Your task to perform on an android device: Clear the shopping cart on bestbuy. Add "macbook air" to the cart on bestbuy Image 0: 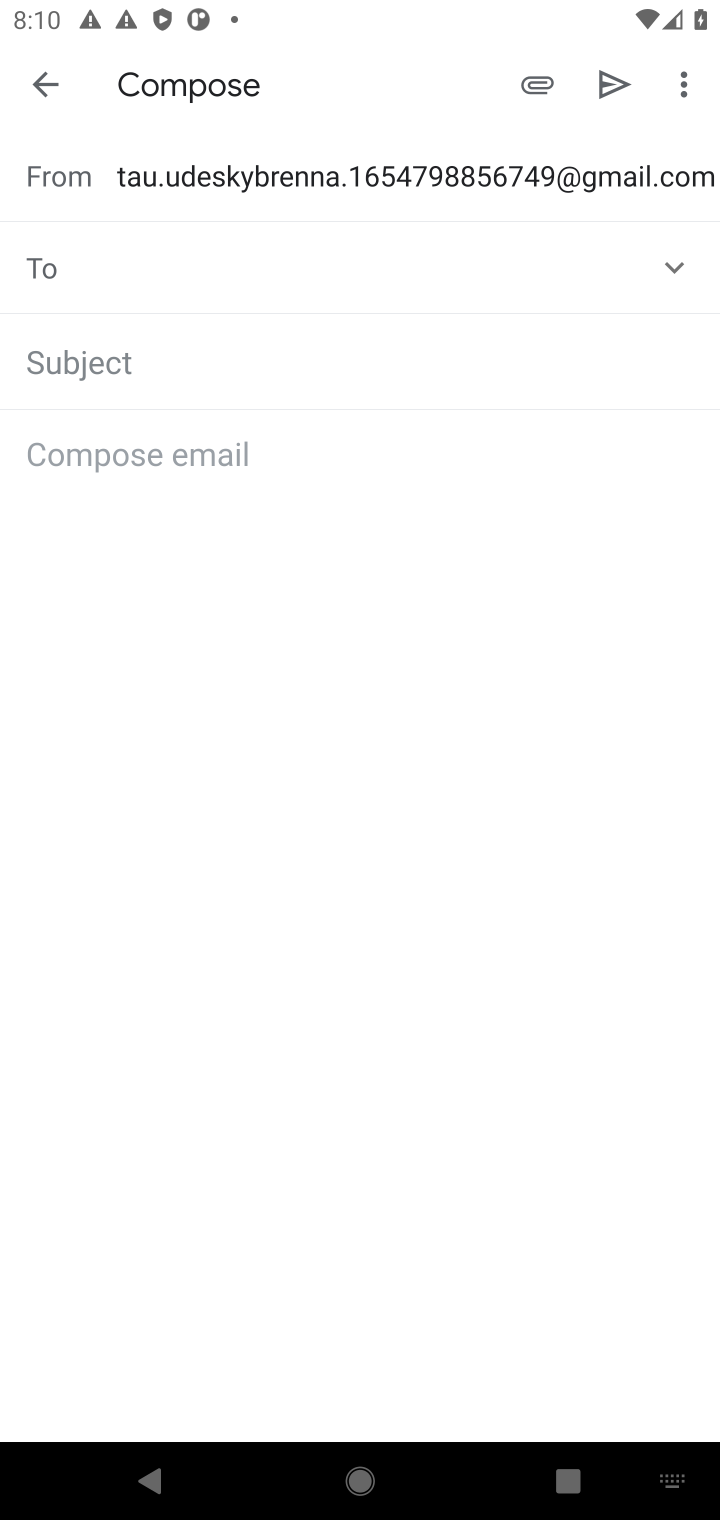
Step 0: press home button
Your task to perform on an android device: Clear the shopping cart on bestbuy. Add "macbook air" to the cart on bestbuy Image 1: 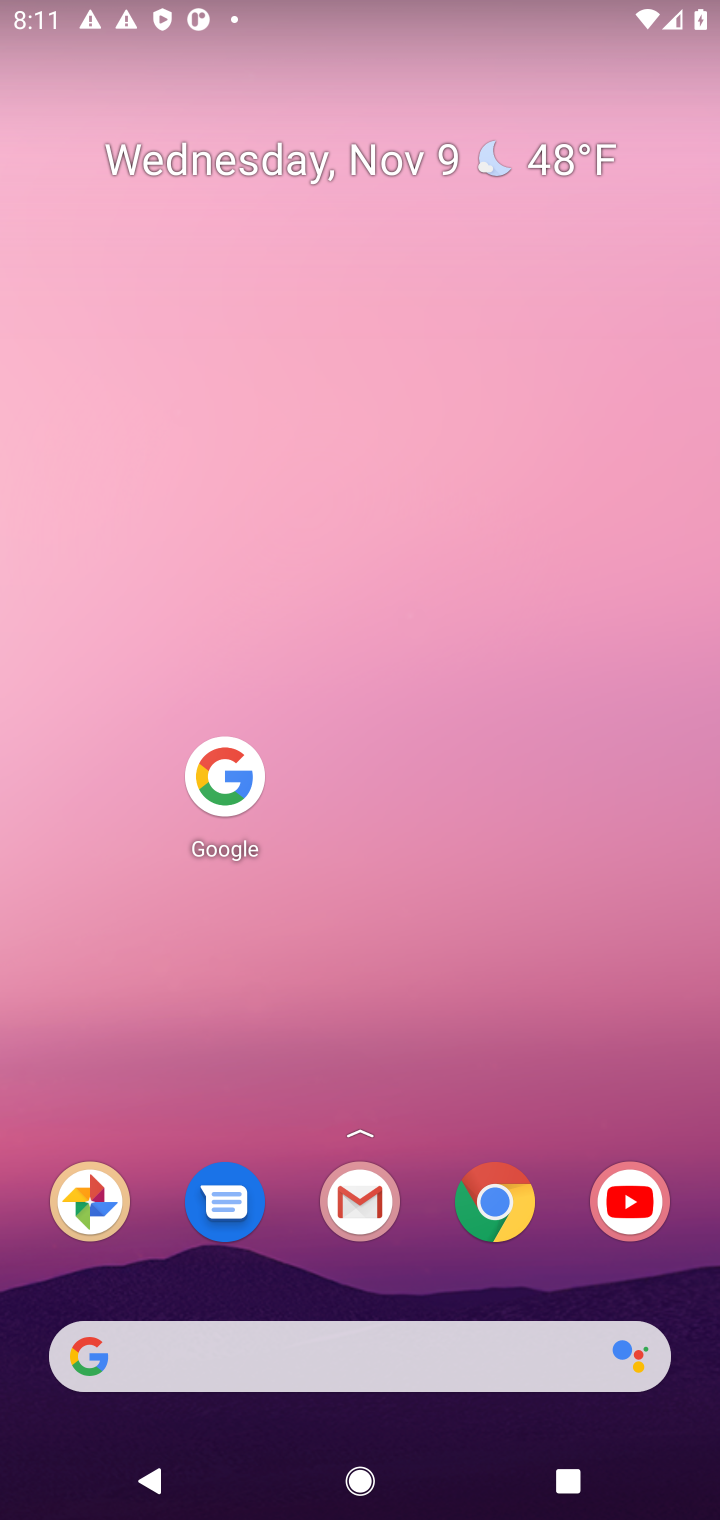
Step 1: click (494, 1188)
Your task to perform on an android device: Clear the shopping cart on bestbuy. Add "macbook air" to the cart on bestbuy Image 2: 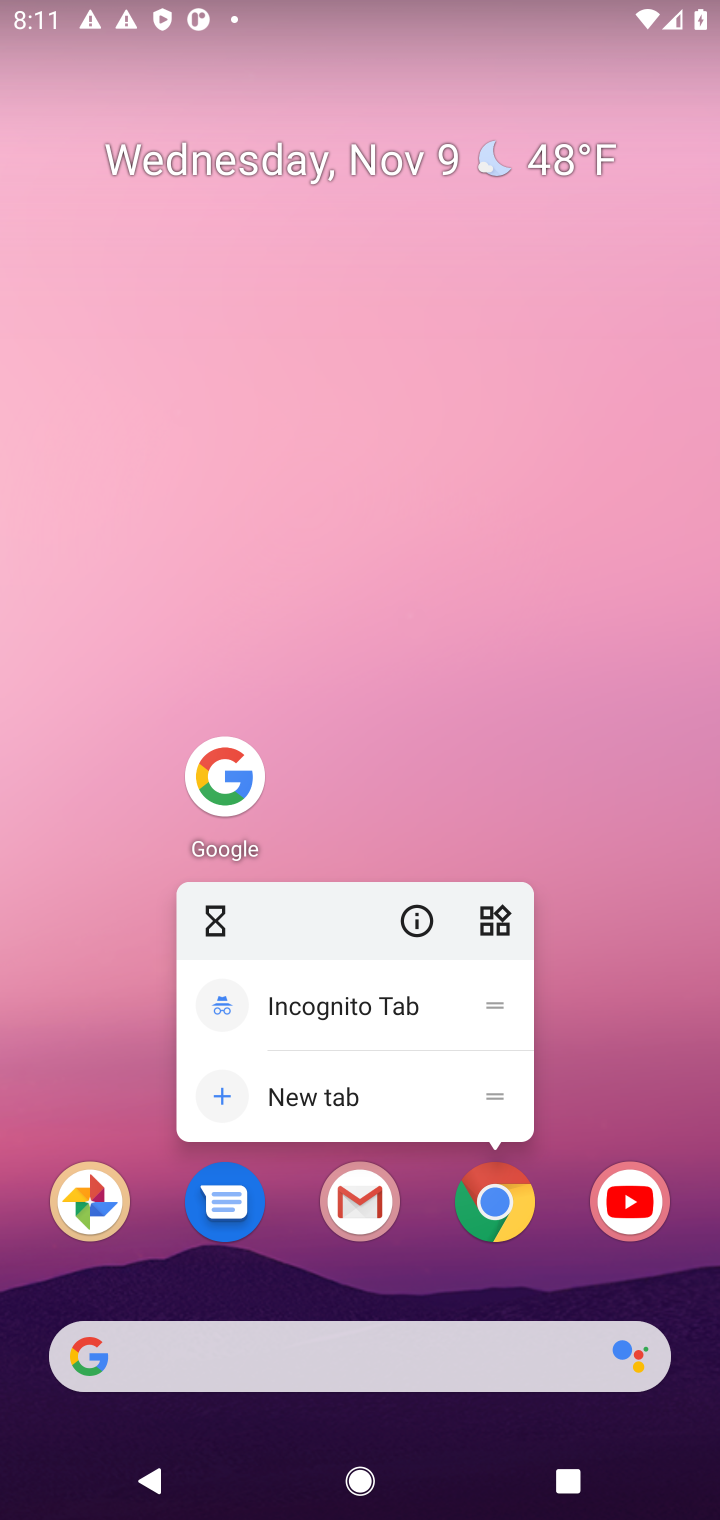
Step 2: click (219, 755)
Your task to perform on an android device: Clear the shopping cart on bestbuy. Add "macbook air" to the cart on bestbuy Image 3: 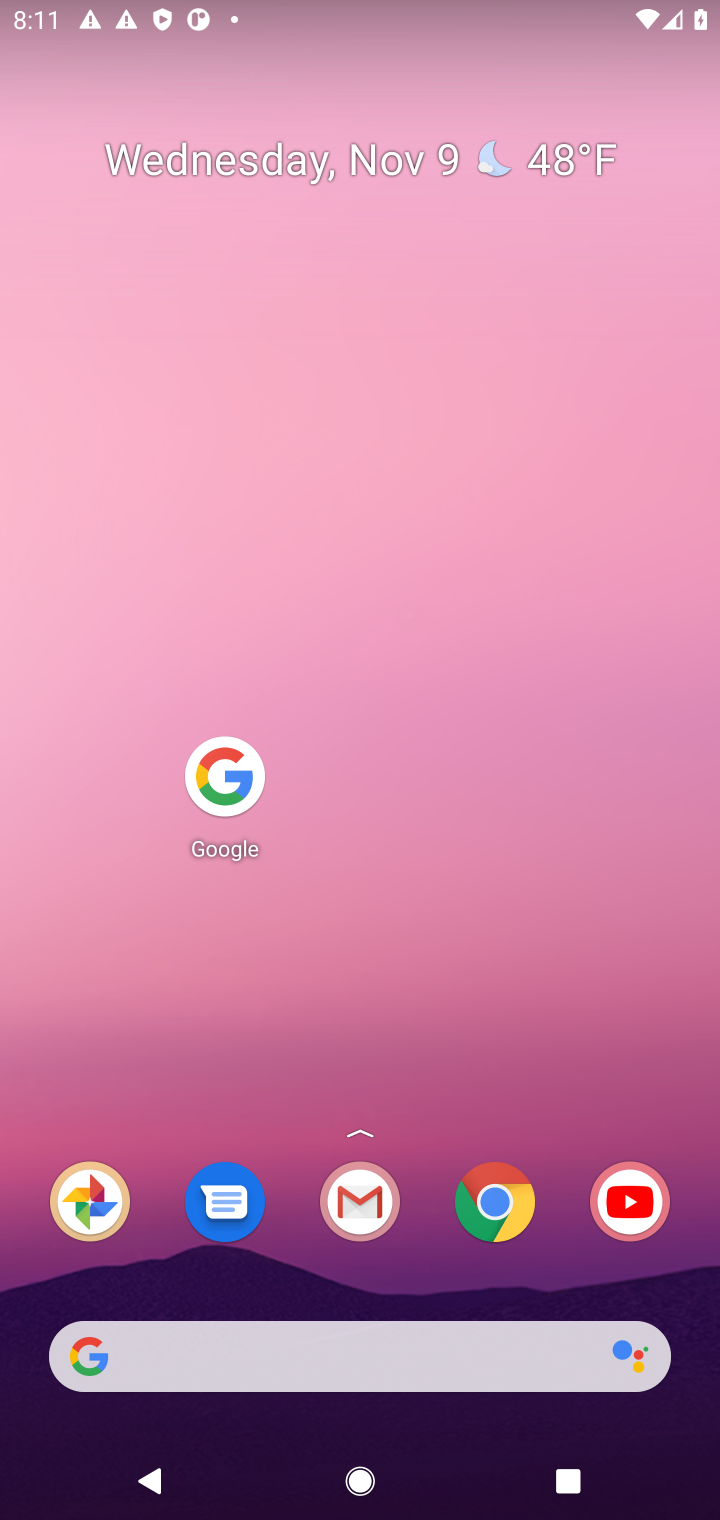
Step 3: click (235, 771)
Your task to perform on an android device: Clear the shopping cart on bestbuy. Add "macbook air" to the cart on bestbuy Image 4: 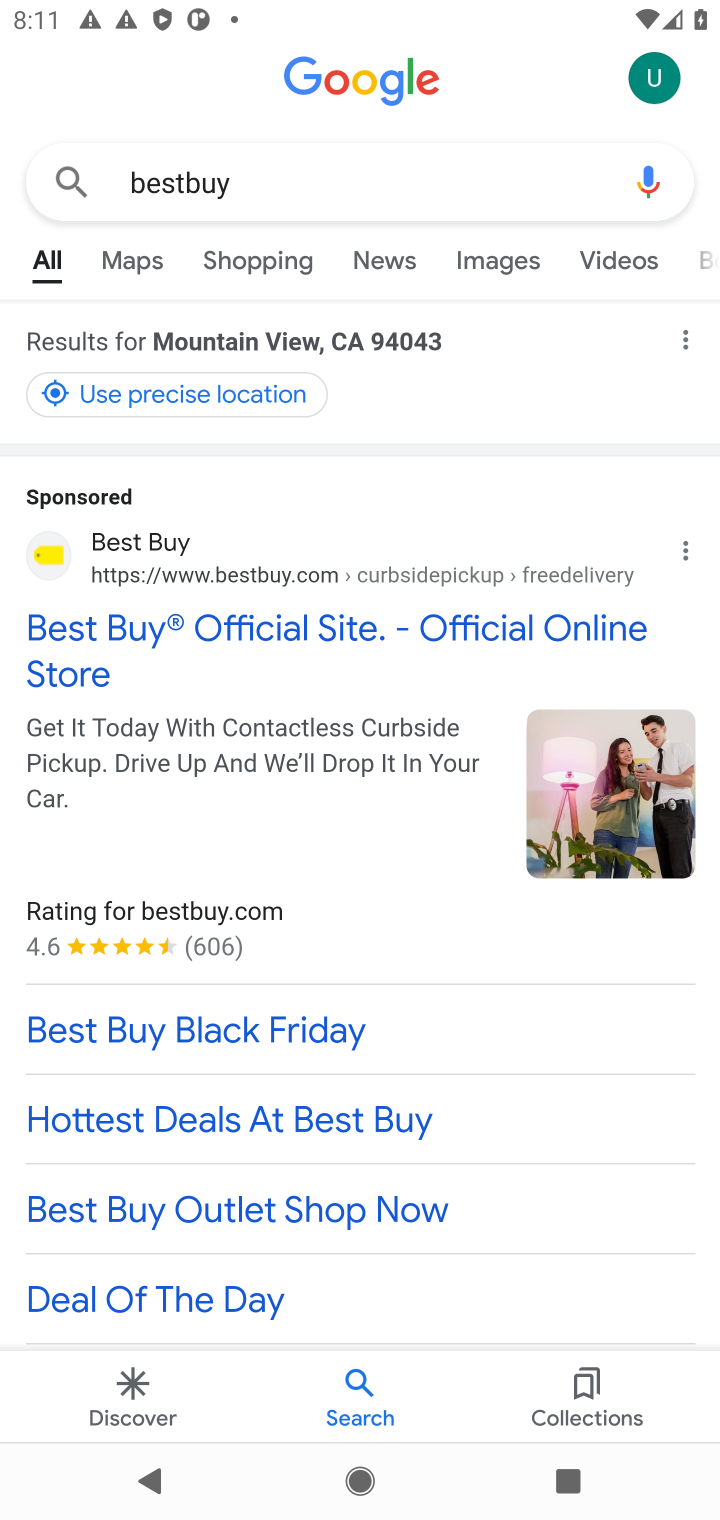
Step 4: click (257, 616)
Your task to perform on an android device: Clear the shopping cart on bestbuy. Add "macbook air" to the cart on bestbuy Image 5: 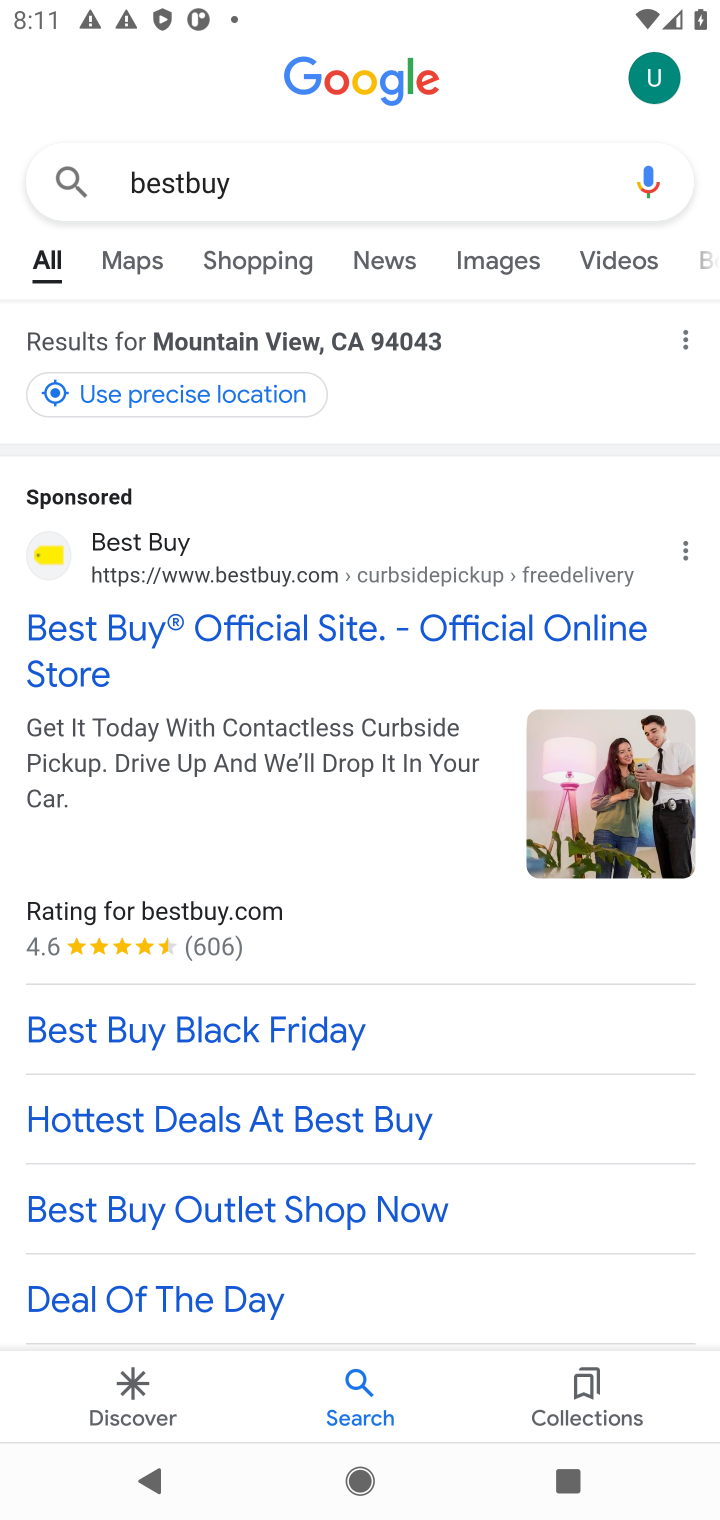
Step 5: click (257, 616)
Your task to perform on an android device: Clear the shopping cart on bestbuy. Add "macbook air" to the cart on bestbuy Image 6: 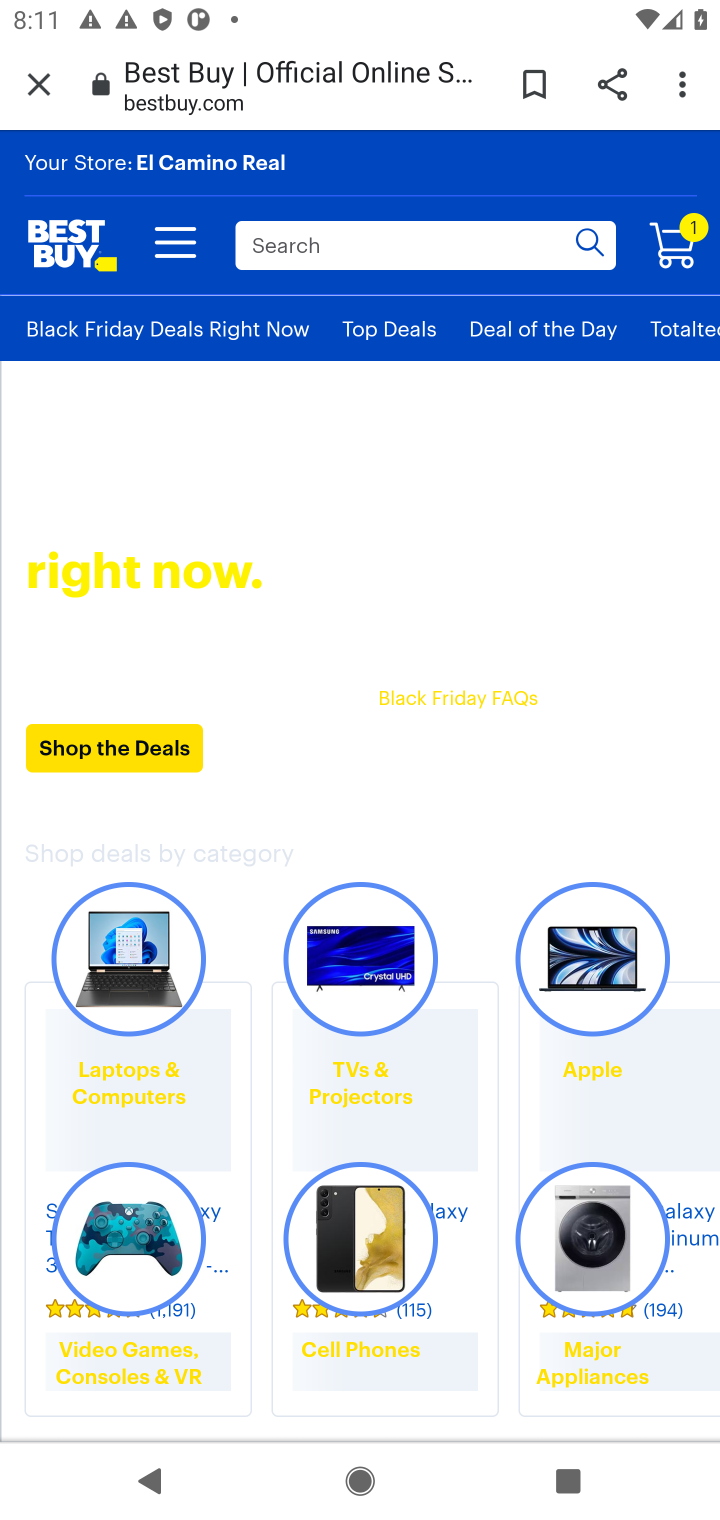
Step 6: click (667, 239)
Your task to perform on an android device: Clear the shopping cart on bestbuy. Add "macbook air" to the cart on bestbuy Image 7: 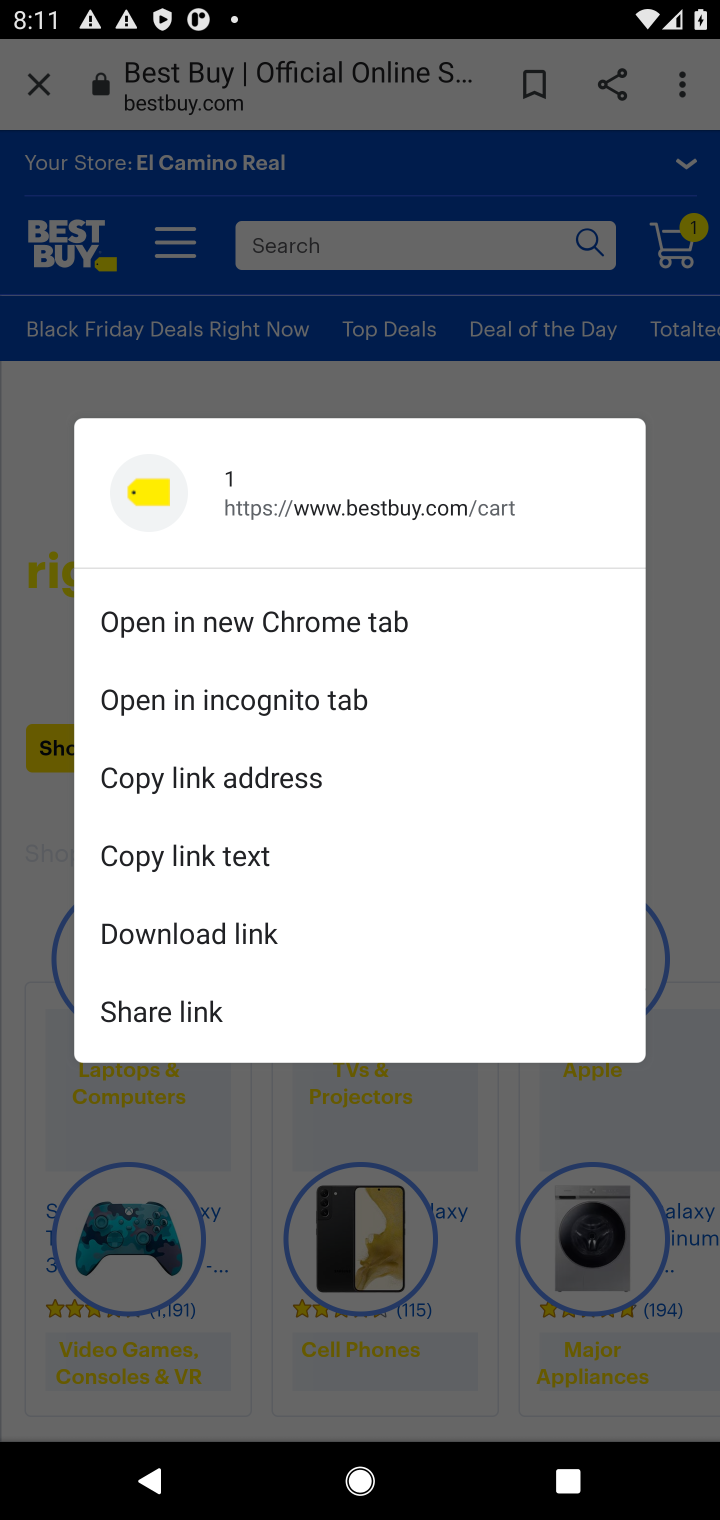
Step 7: click (679, 247)
Your task to perform on an android device: Clear the shopping cart on bestbuy. Add "macbook air" to the cart on bestbuy Image 8: 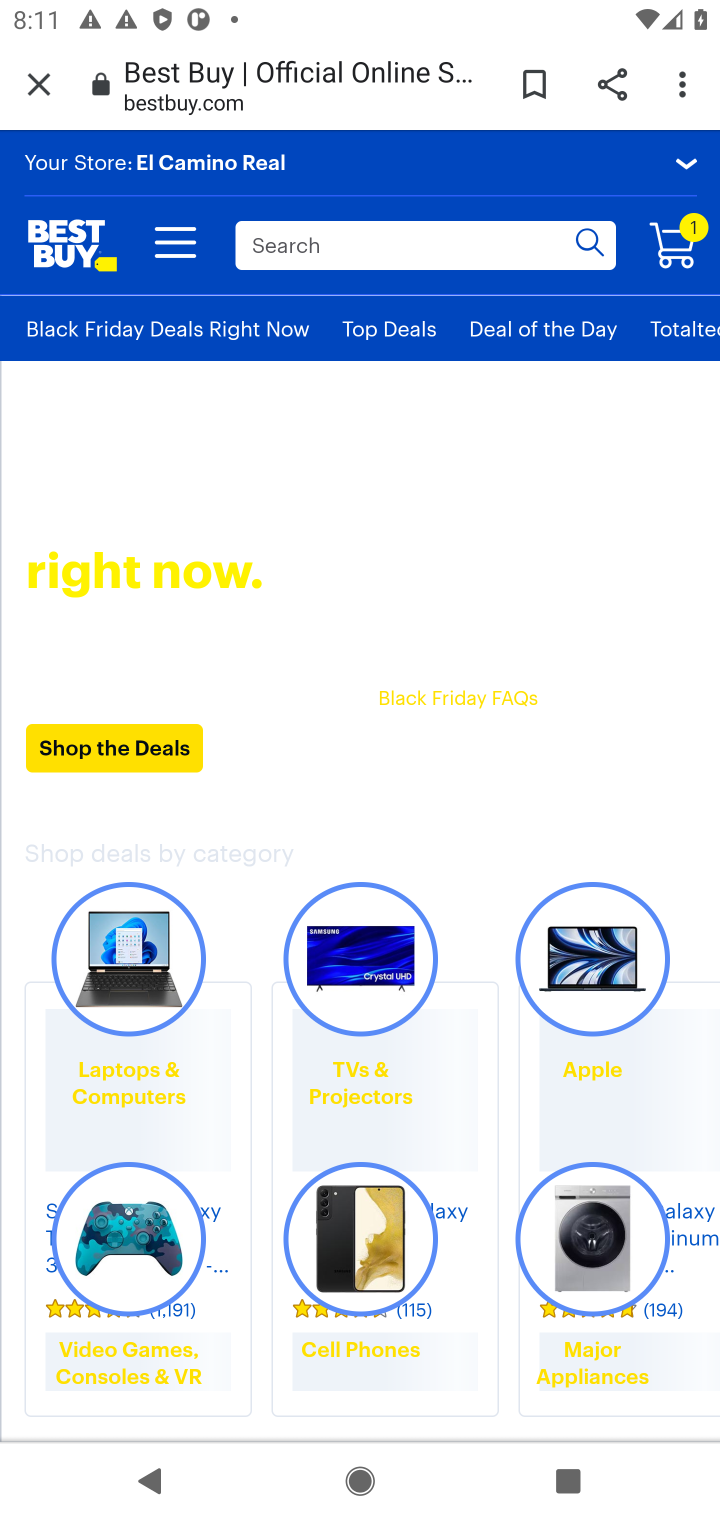
Step 8: click (687, 239)
Your task to perform on an android device: Clear the shopping cart on bestbuy. Add "macbook air" to the cart on bestbuy Image 9: 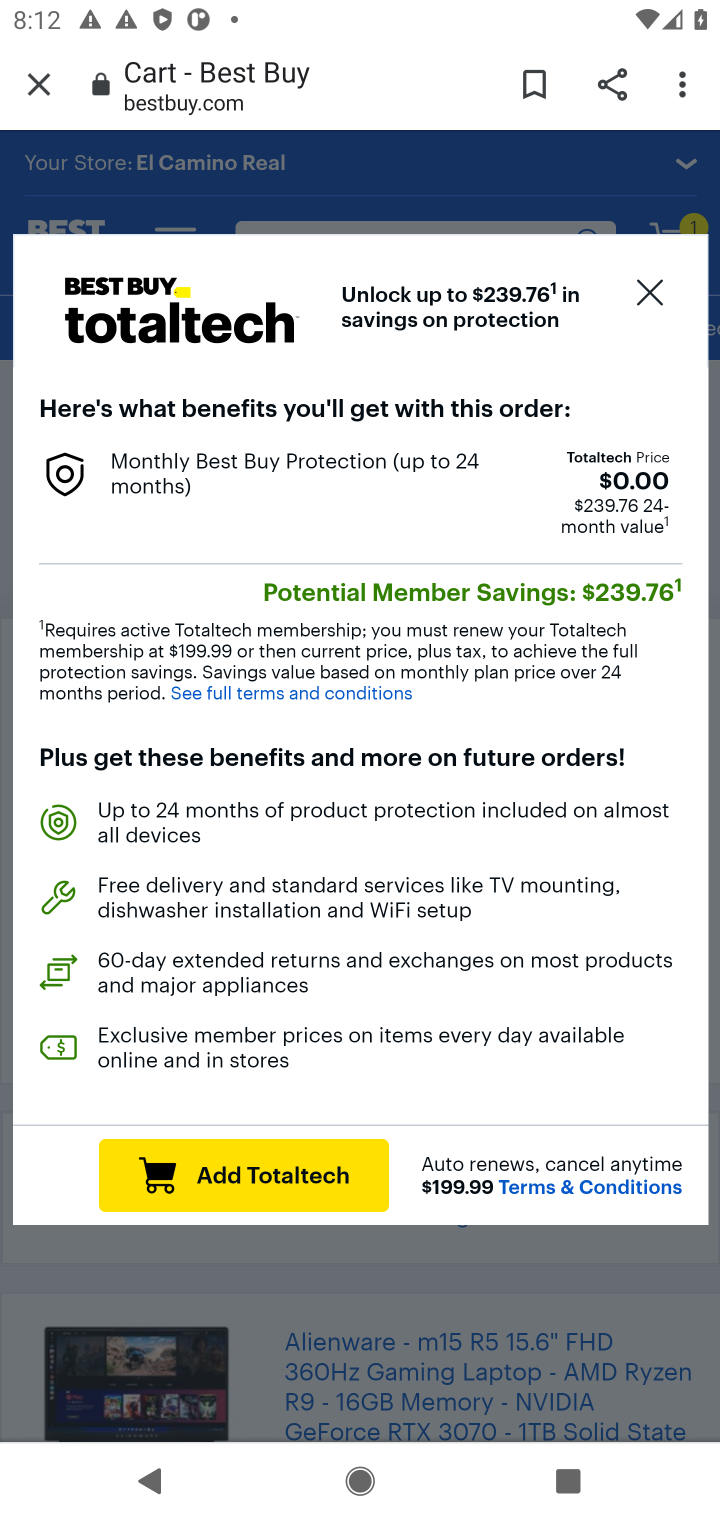
Step 9: click (650, 280)
Your task to perform on an android device: Clear the shopping cart on bestbuy. Add "macbook air" to the cart on bestbuy Image 10: 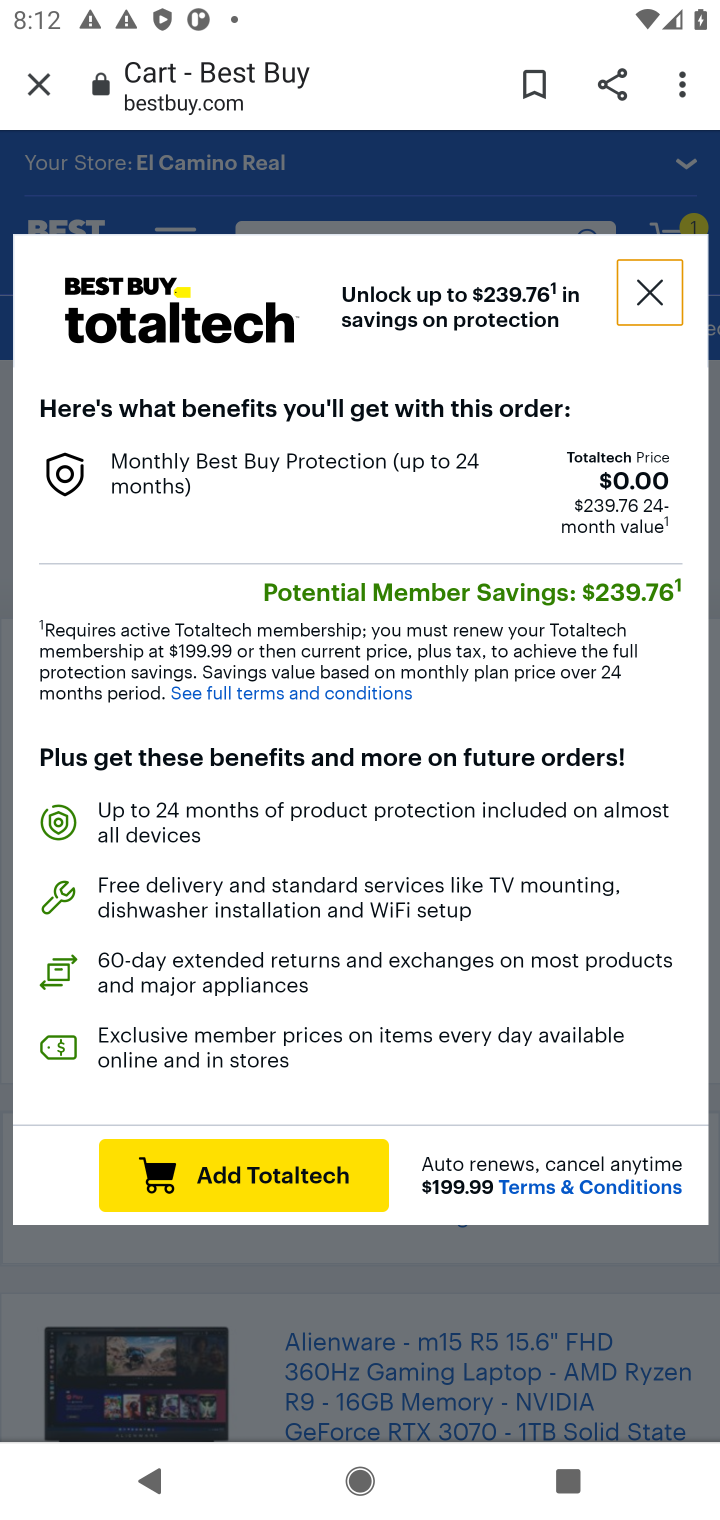
Step 10: click (649, 291)
Your task to perform on an android device: Clear the shopping cart on bestbuy. Add "macbook air" to the cart on bestbuy Image 11: 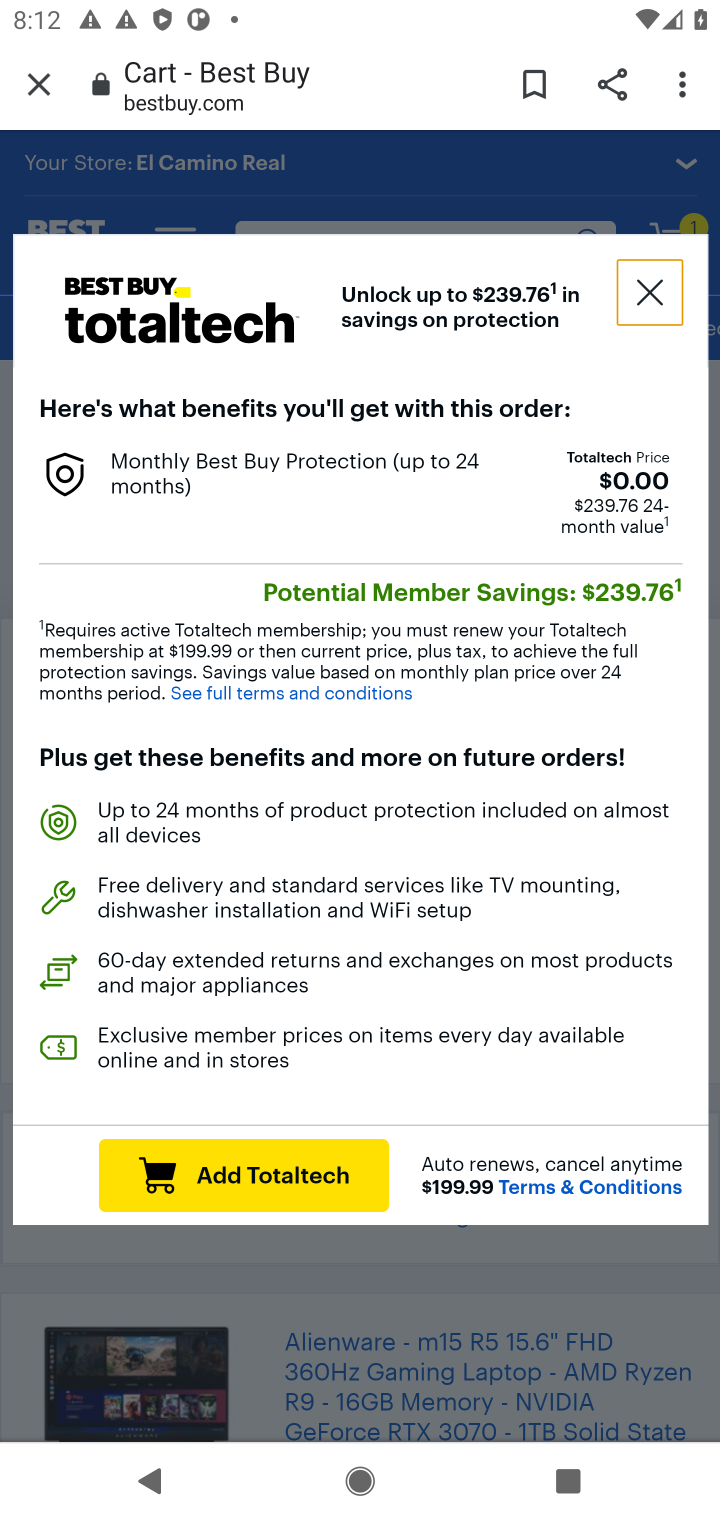
Step 11: click (652, 279)
Your task to perform on an android device: Clear the shopping cart on bestbuy. Add "macbook air" to the cart on bestbuy Image 12: 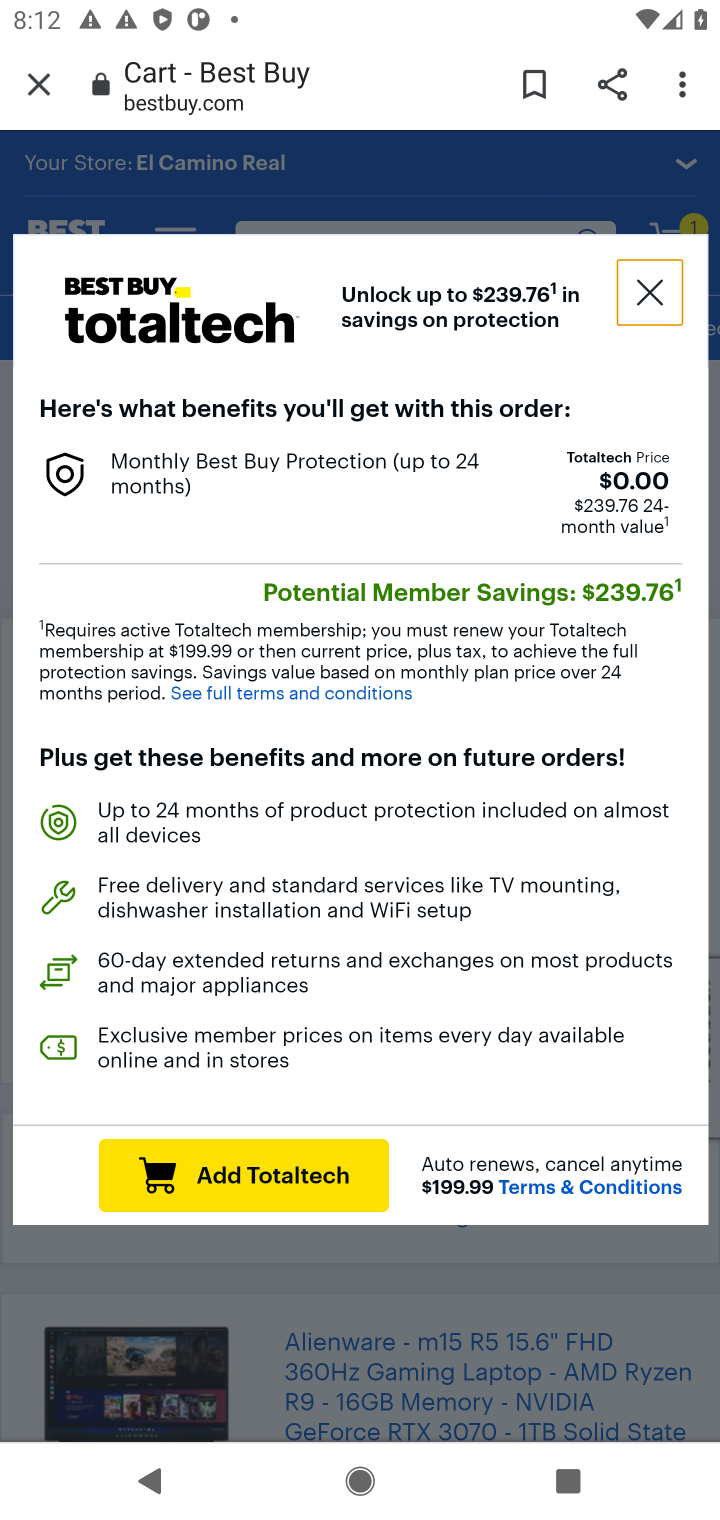
Step 12: click (650, 287)
Your task to perform on an android device: Clear the shopping cart on bestbuy. Add "macbook air" to the cart on bestbuy Image 13: 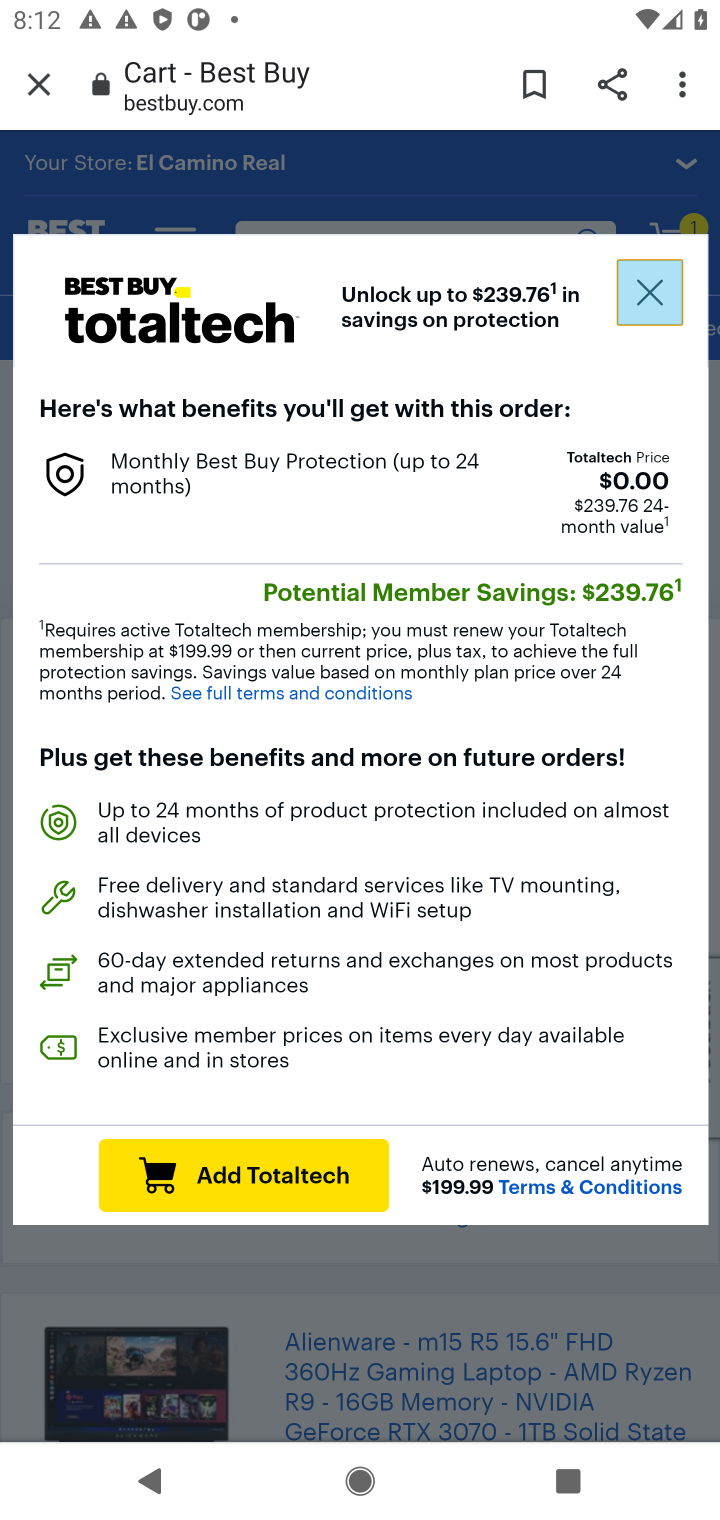
Step 13: click (646, 283)
Your task to perform on an android device: Clear the shopping cart on bestbuy. Add "macbook air" to the cart on bestbuy Image 14: 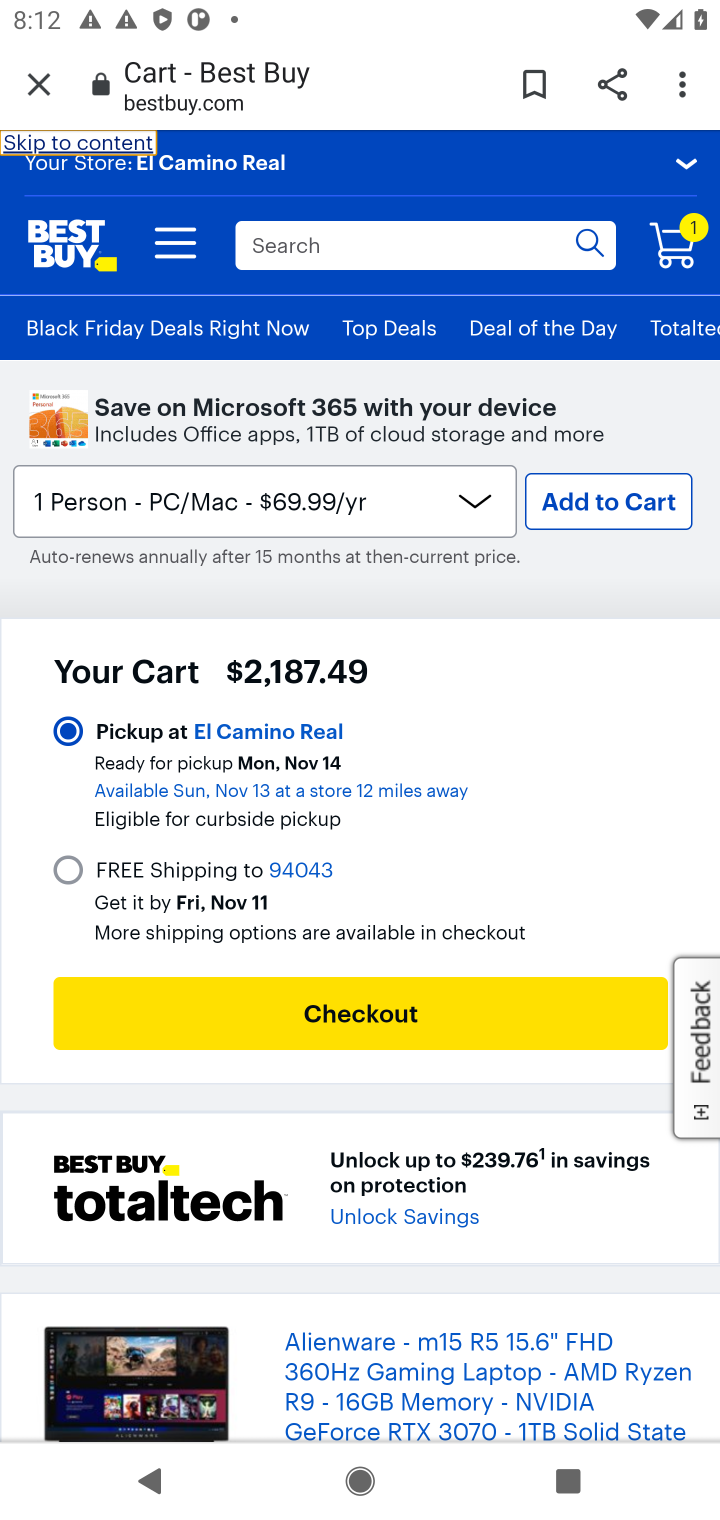
Step 14: drag from (456, 848) to (505, 544)
Your task to perform on an android device: Clear the shopping cart on bestbuy. Add "macbook air" to the cart on bestbuy Image 15: 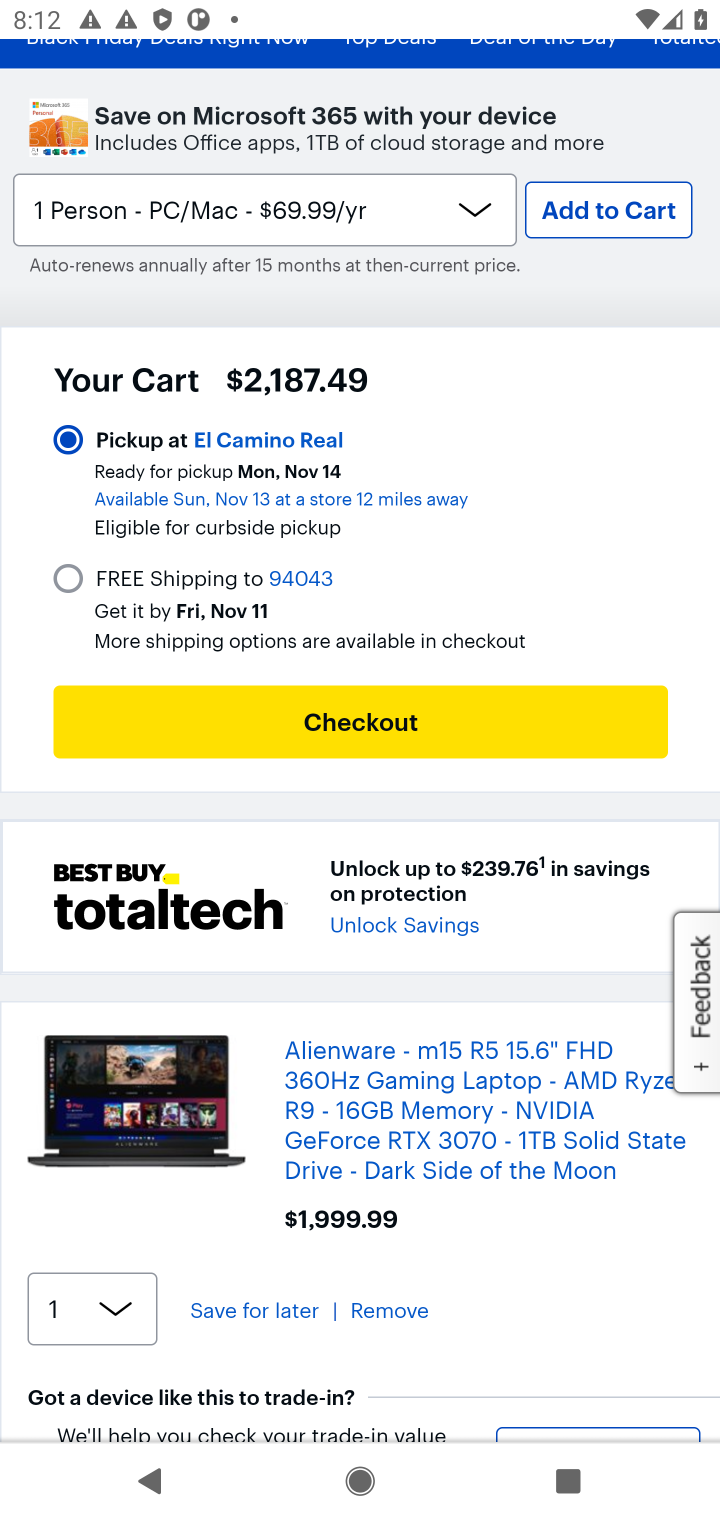
Step 15: click (375, 1305)
Your task to perform on an android device: Clear the shopping cart on bestbuy. Add "macbook air" to the cart on bestbuy Image 16: 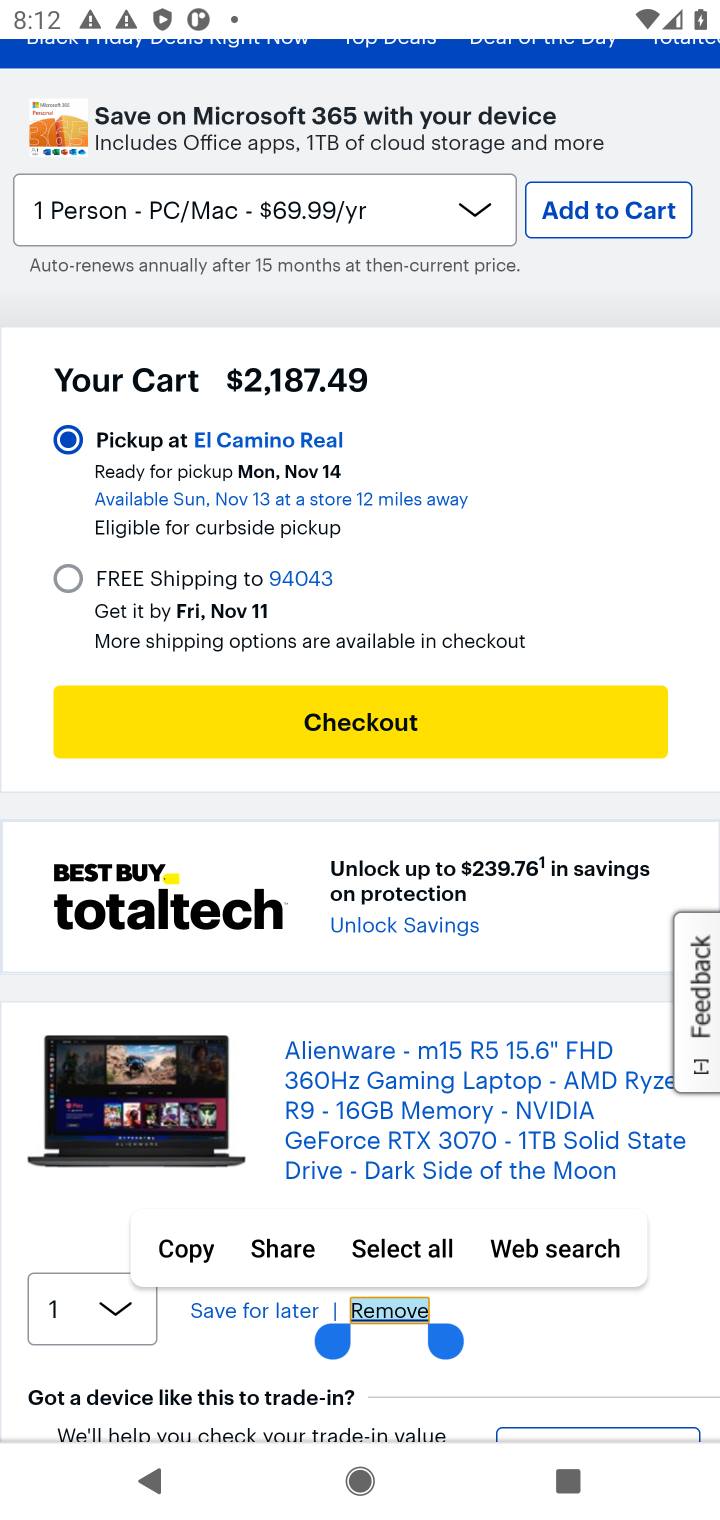
Step 16: click (376, 1291)
Your task to perform on an android device: Clear the shopping cart on bestbuy. Add "macbook air" to the cart on bestbuy Image 17: 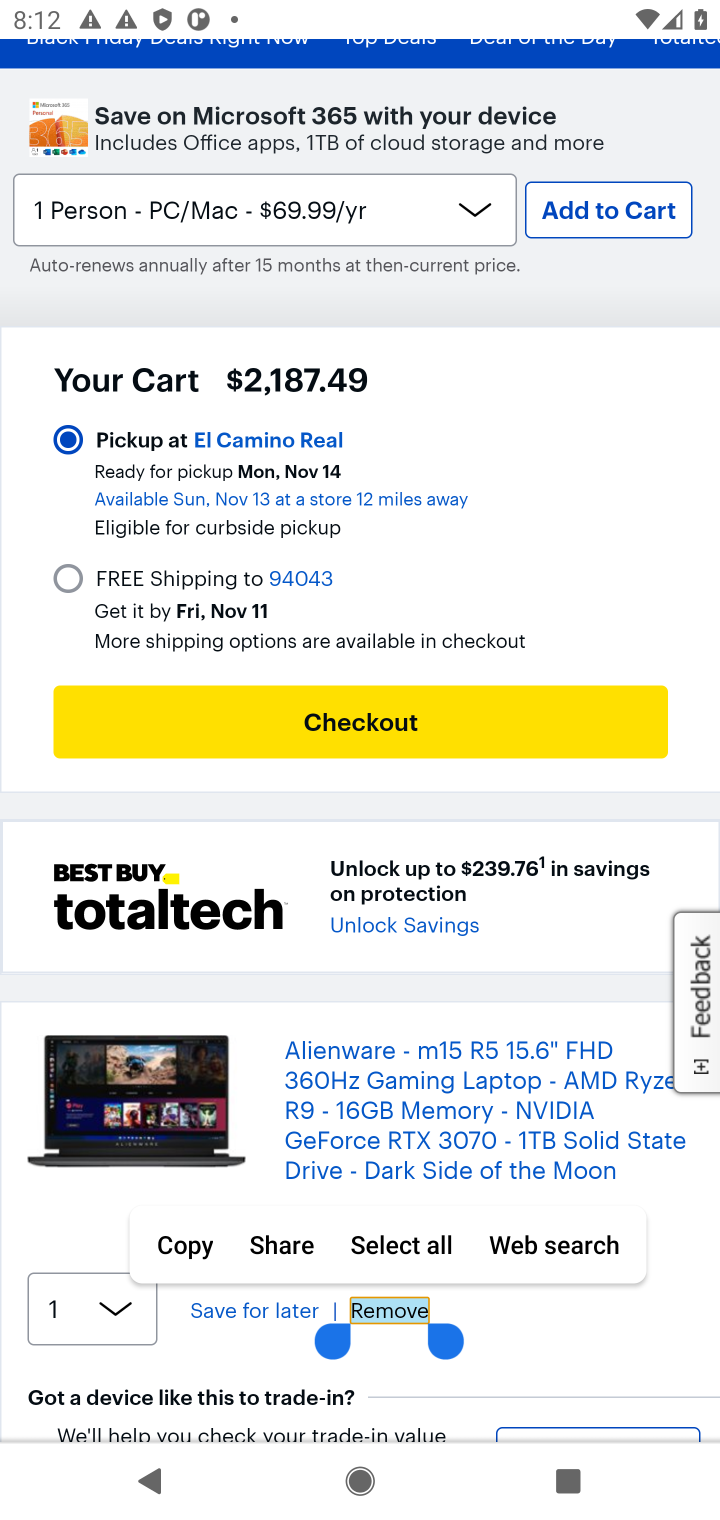
Step 17: click (389, 1306)
Your task to perform on an android device: Clear the shopping cart on bestbuy. Add "macbook air" to the cart on bestbuy Image 18: 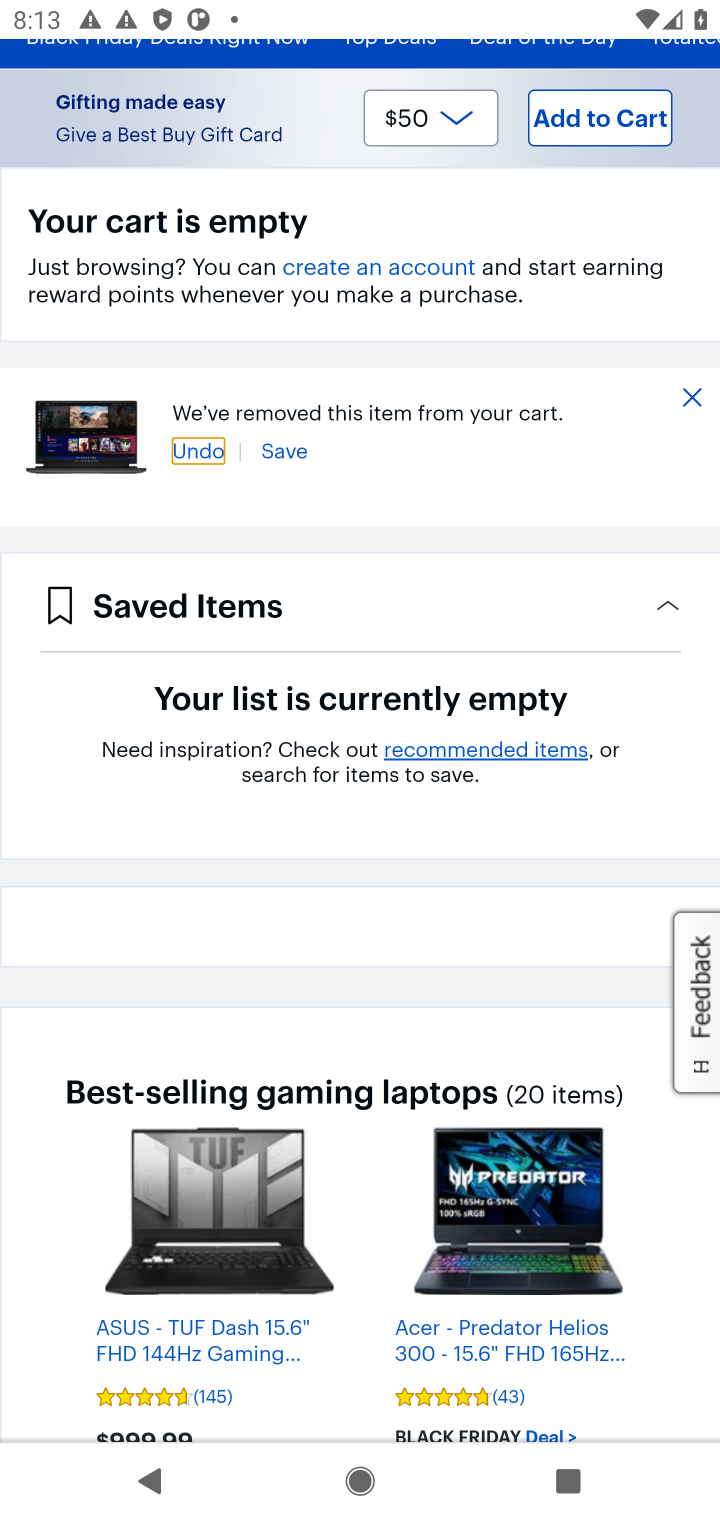
Step 18: drag from (489, 450) to (416, 1319)
Your task to perform on an android device: Clear the shopping cart on bestbuy. Add "macbook air" to the cart on bestbuy Image 19: 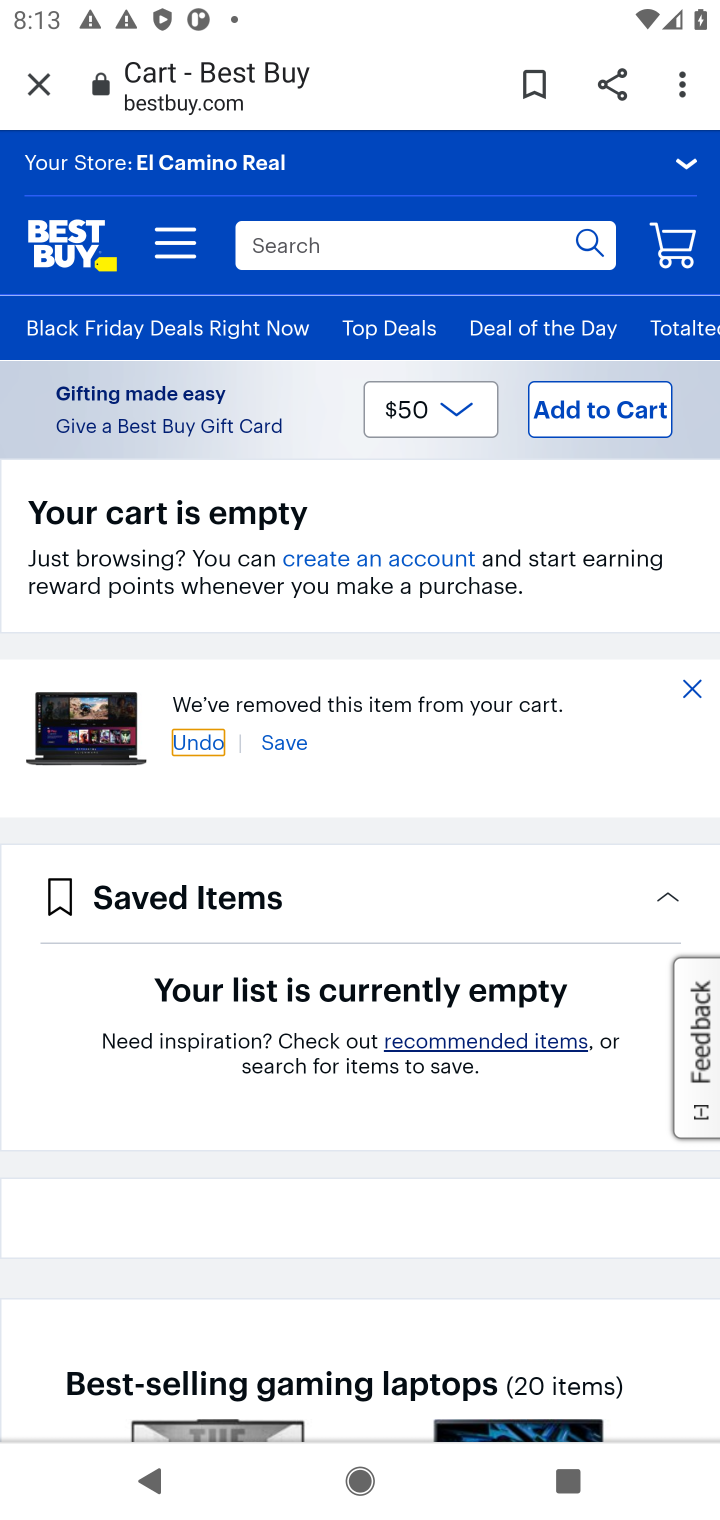
Step 19: click (356, 233)
Your task to perform on an android device: Clear the shopping cart on bestbuy. Add "macbook air" to the cart on bestbuy Image 20: 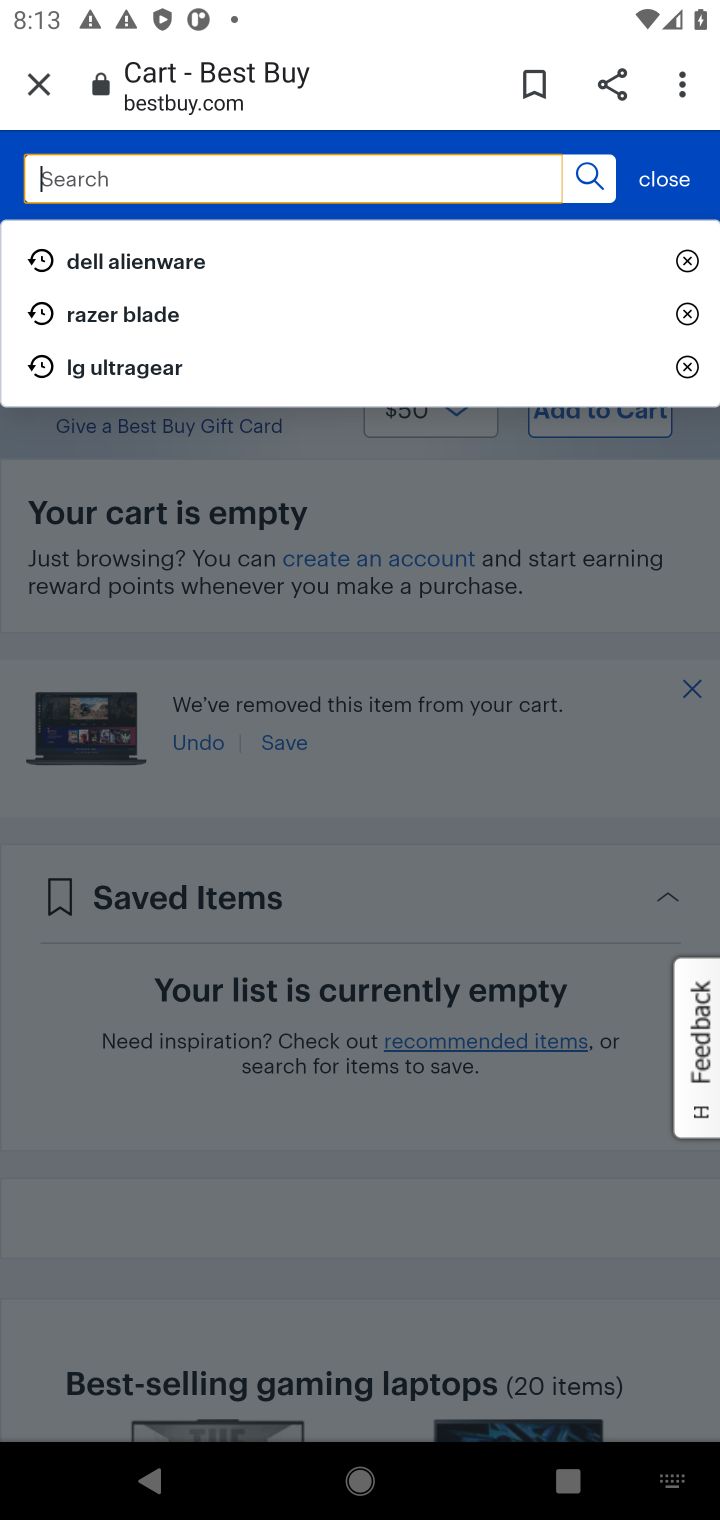
Step 20: press enter
Your task to perform on an android device: Clear the shopping cart on bestbuy. Add "macbook air" to the cart on bestbuy Image 21: 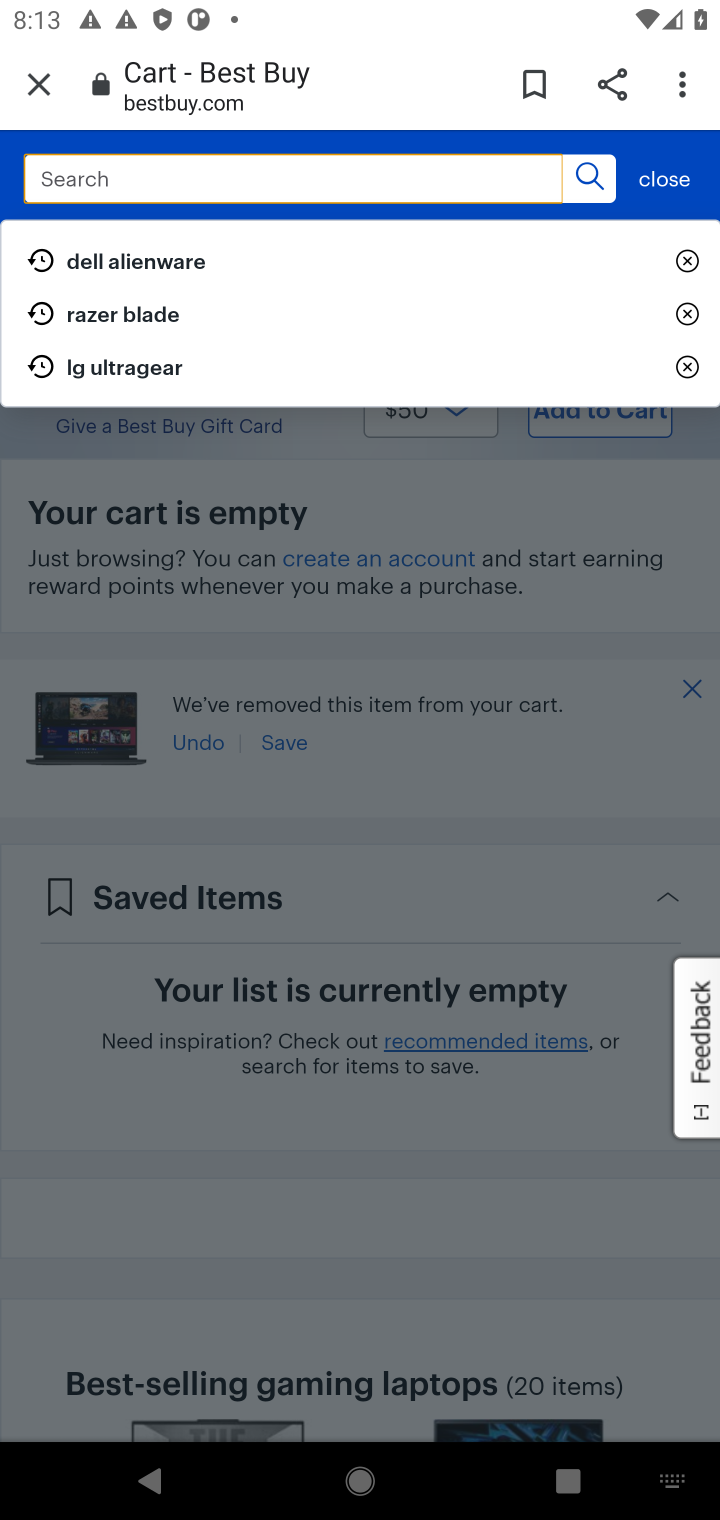
Step 21: type "macbook air"
Your task to perform on an android device: Clear the shopping cart on bestbuy. Add "macbook air" to the cart on bestbuy Image 22: 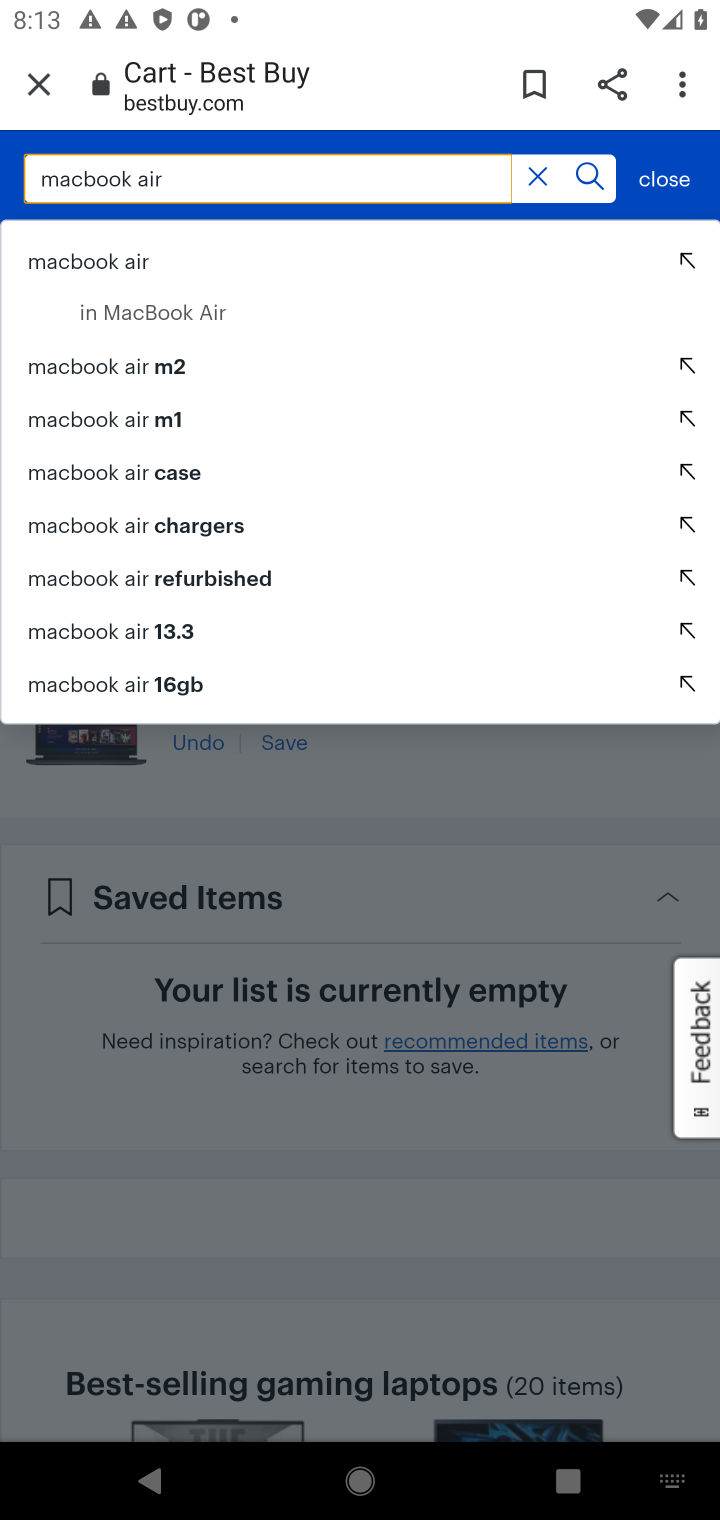
Step 22: click (587, 175)
Your task to perform on an android device: Clear the shopping cart on bestbuy. Add "macbook air" to the cart on bestbuy Image 23: 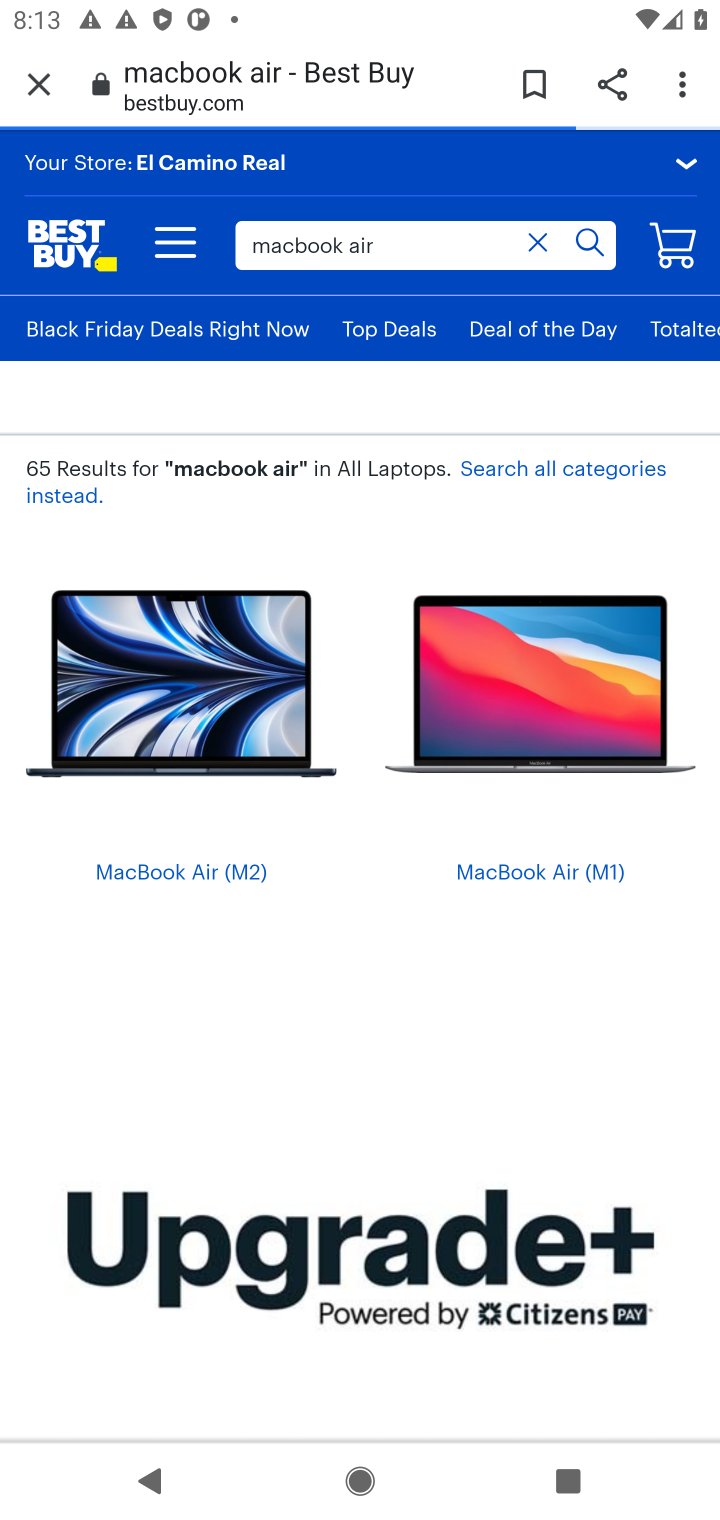
Step 23: drag from (403, 1179) to (499, 447)
Your task to perform on an android device: Clear the shopping cart on bestbuy. Add "macbook air" to the cart on bestbuy Image 24: 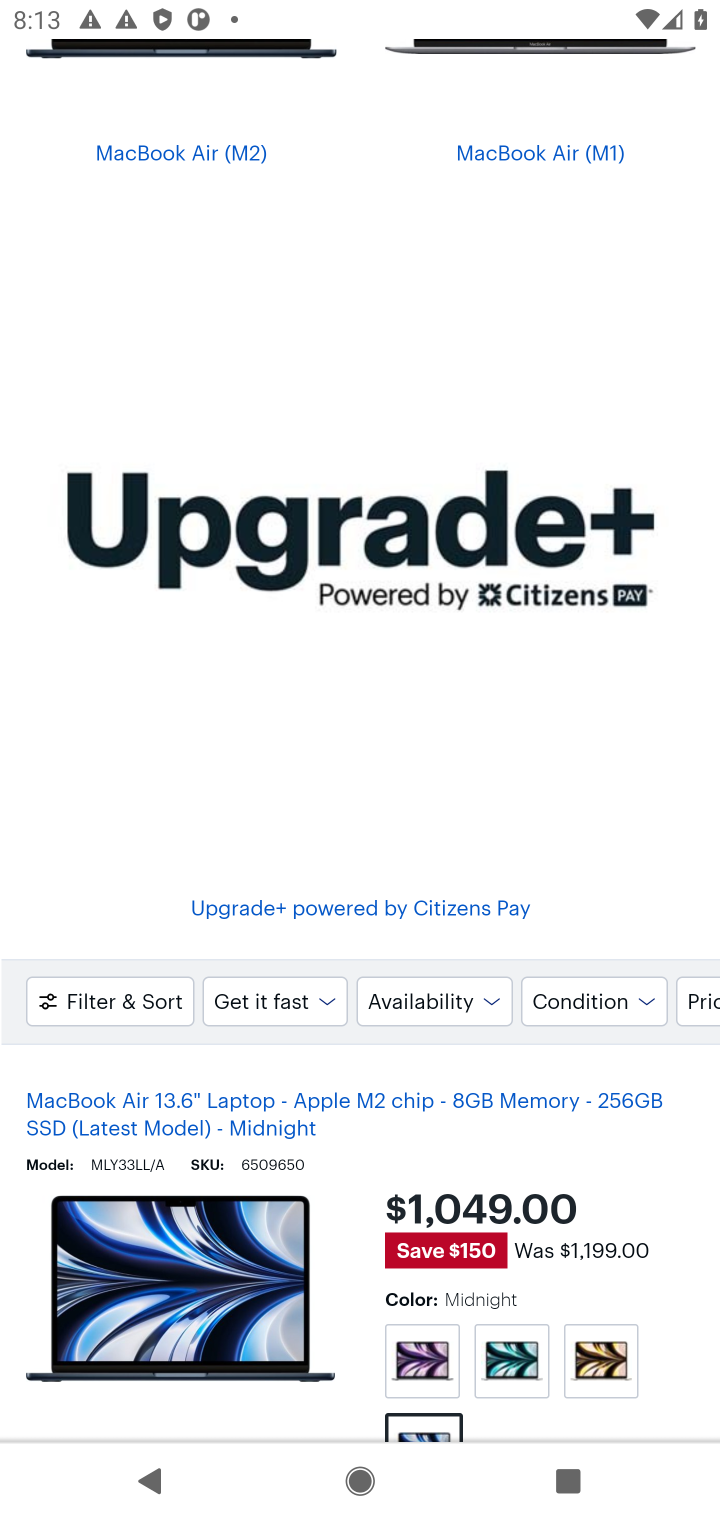
Step 24: drag from (333, 963) to (414, 0)
Your task to perform on an android device: Clear the shopping cart on bestbuy. Add "macbook air" to the cart on bestbuy Image 25: 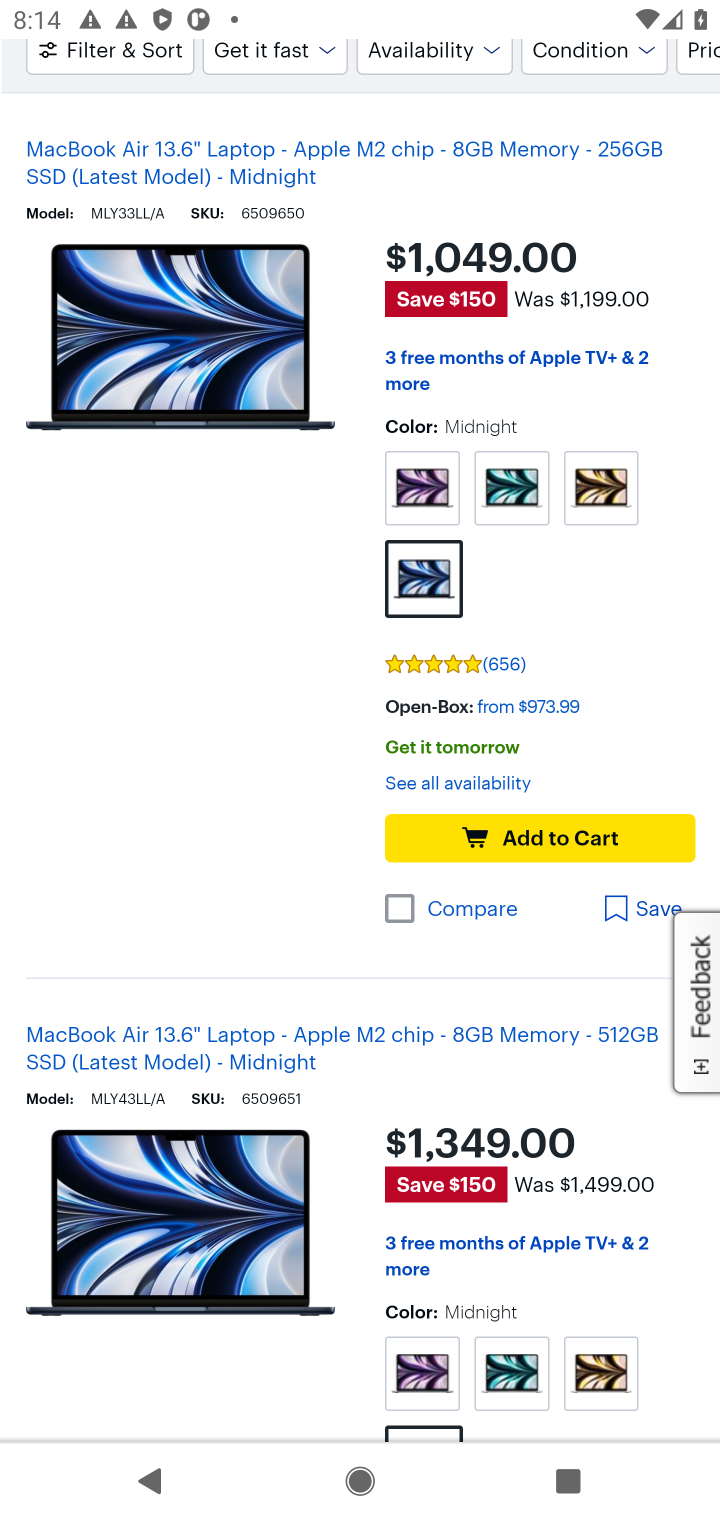
Step 25: click (591, 834)
Your task to perform on an android device: Clear the shopping cart on bestbuy. Add "macbook air" to the cart on bestbuy Image 26: 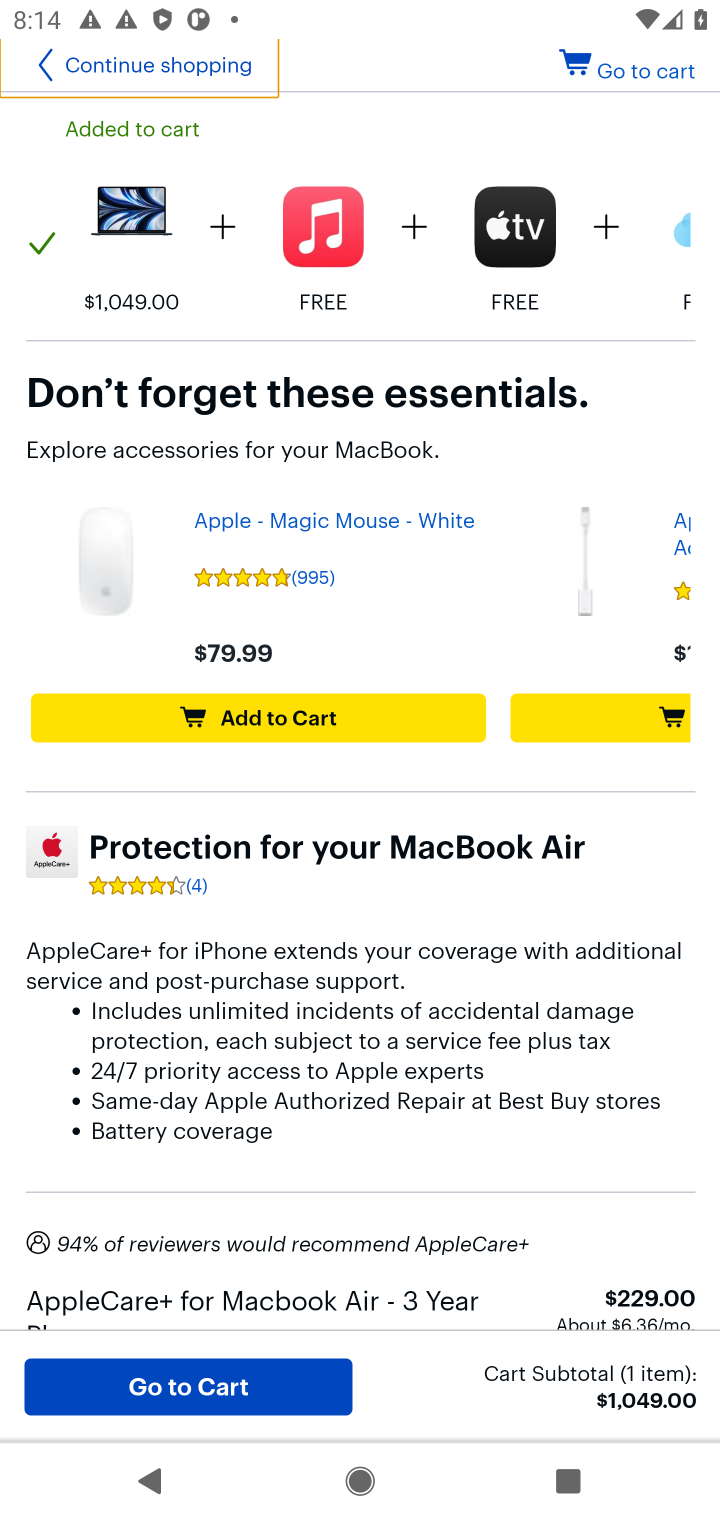
Step 26: click (601, 63)
Your task to perform on an android device: Clear the shopping cart on bestbuy. Add "macbook air" to the cart on bestbuy Image 27: 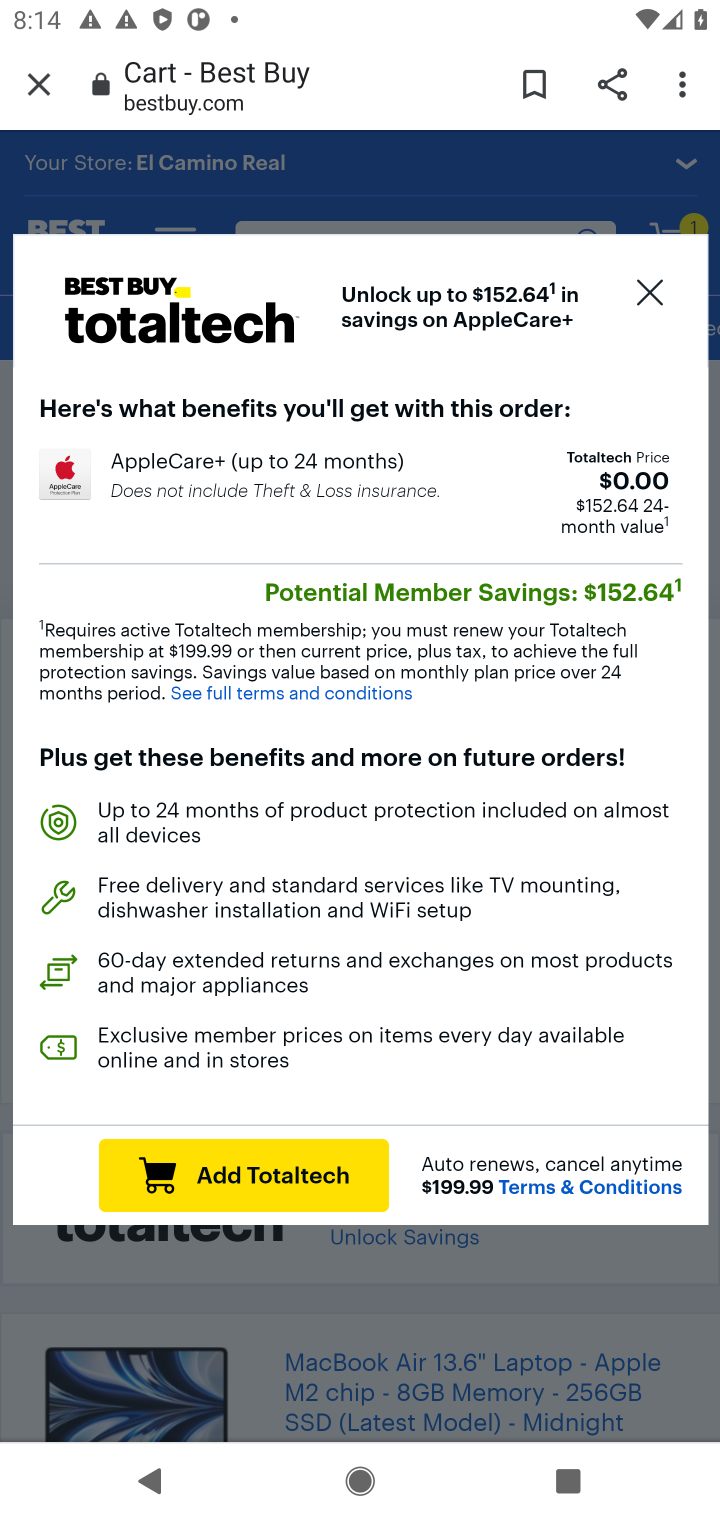
Step 27: click (658, 277)
Your task to perform on an android device: Clear the shopping cart on bestbuy. Add "macbook air" to the cart on bestbuy Image 28: 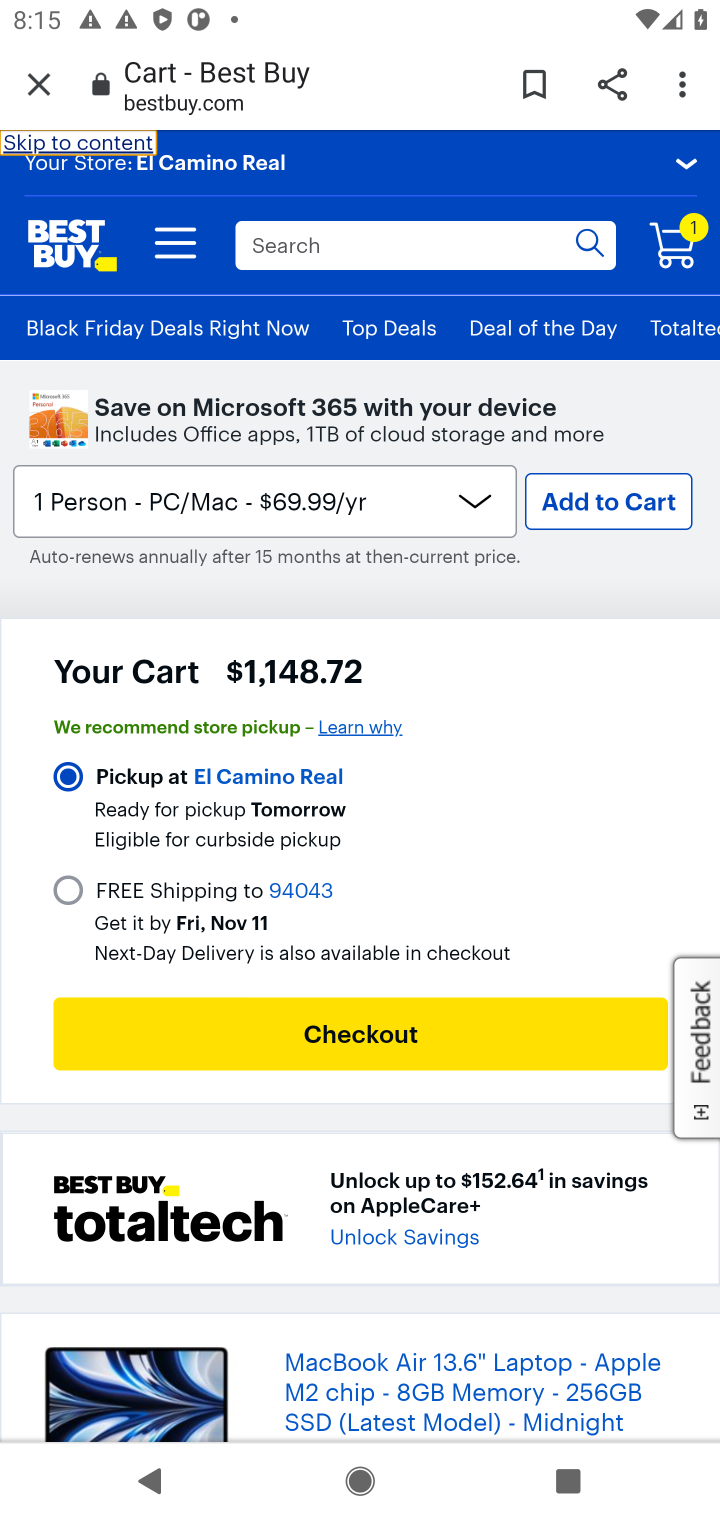
Step 28: task complete